Your task to perform on an android device: manage bookmarks in the chrome app Image 0: 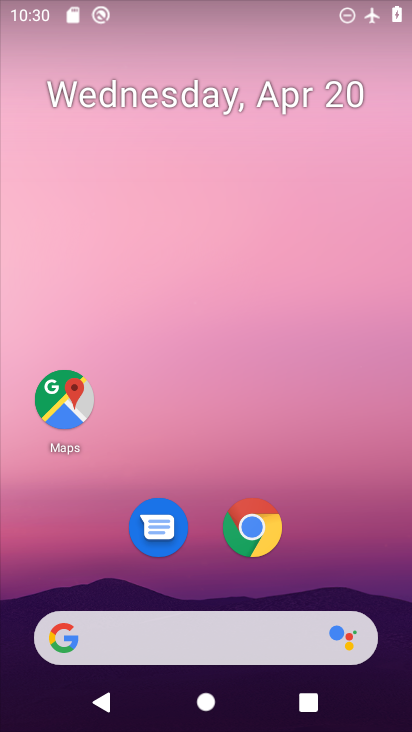
Step 0: click (271, 536)
Your task to perform on an android device: manage bookmarks in the chrome app Image 1: 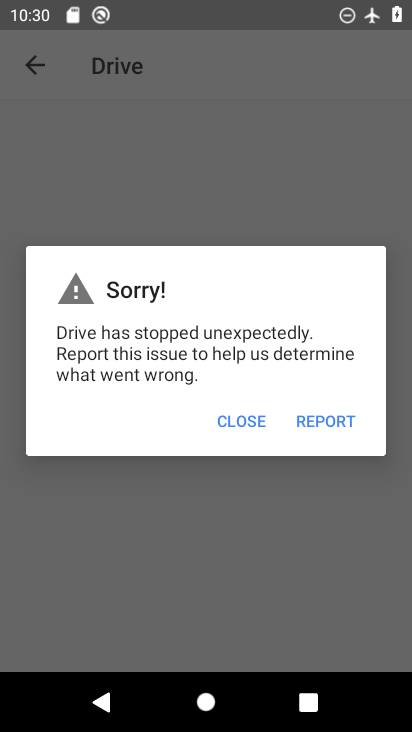
Step 1: click (240, 418)
Your task to perform on an android device: manage bookmarks in the chrome app Image 2: 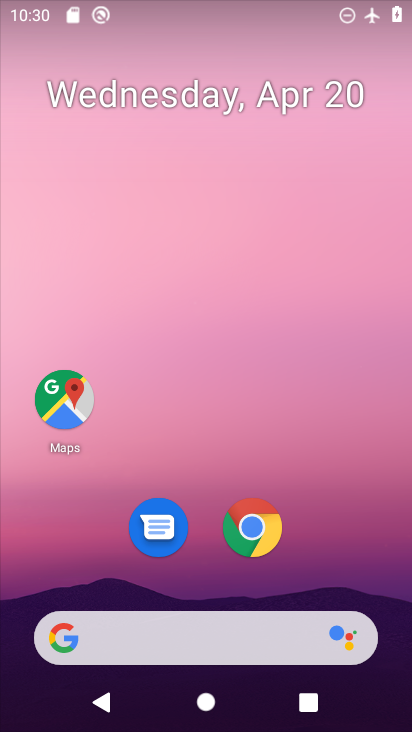
Step 2: click (248, 529)
Your task to perform on an android device: manage bookmarks in the chrome app Image 3: 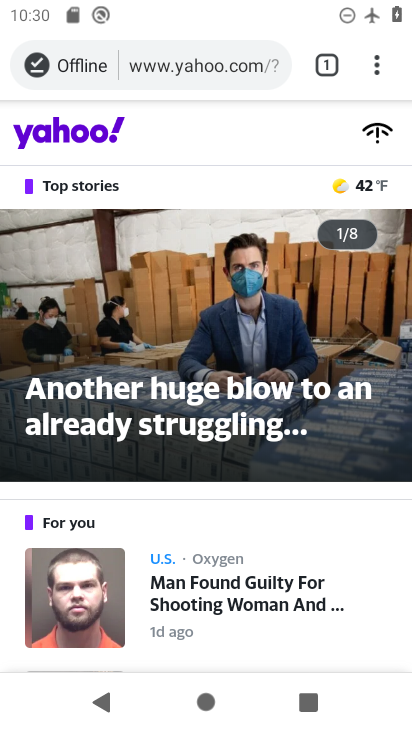
Step 3: click (377, 57)
Your task to perform on an android device: manage bookmarks in the chrome app Image 4: 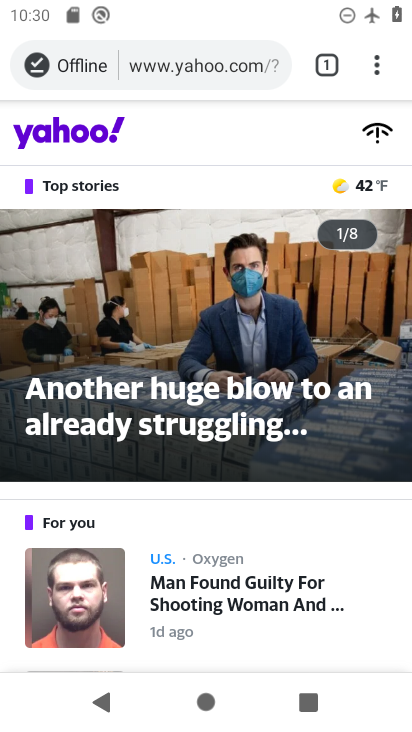
Step 4: click (376, 85)
Your task to perform on an android device: manage bookmarks in the chrome app Image 5: 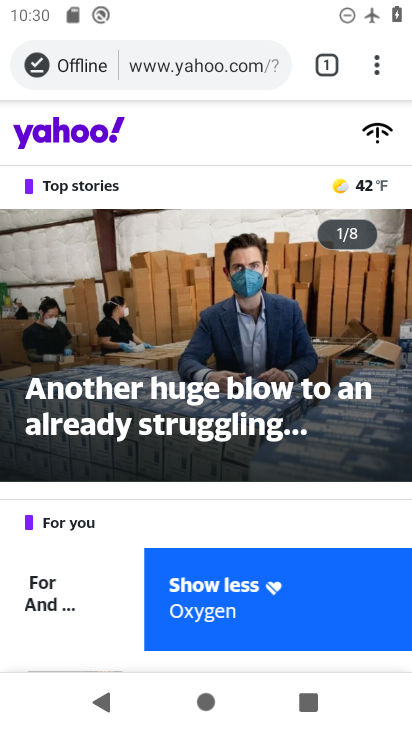
Step 5: click (378, 61)
Your task to perform on an android device: manage bookmarks in the chrome app Image 6: 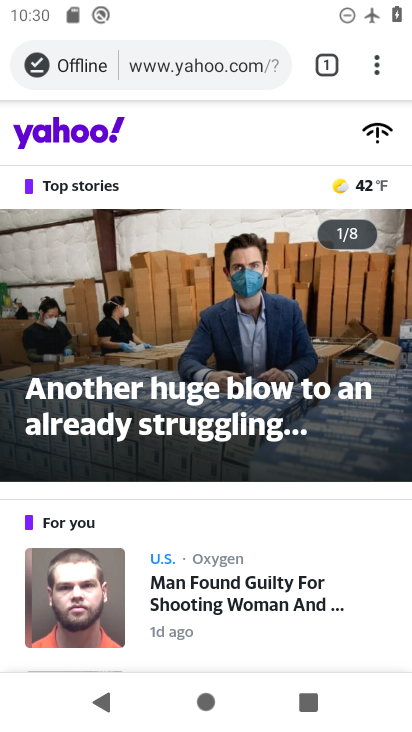
Step 6: click (378, 69)
Your task to perform on an android device: manage bookmarks in the chrome app Image 7: 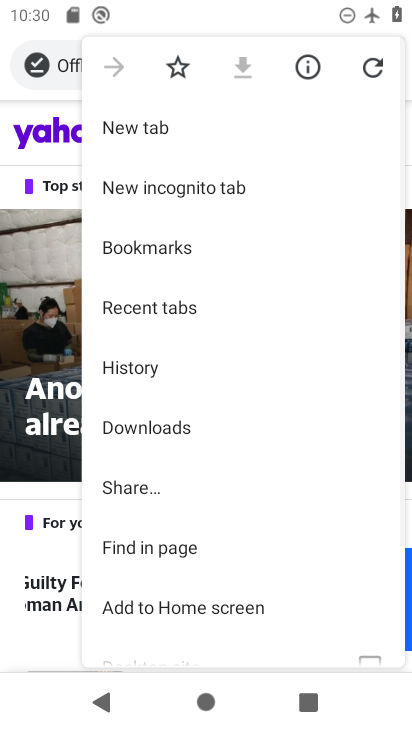
Step 7: drag from (167, 517) to (188, 345)
Your task to perform on an android device: manage bookmarks in the chrome app Image 8: 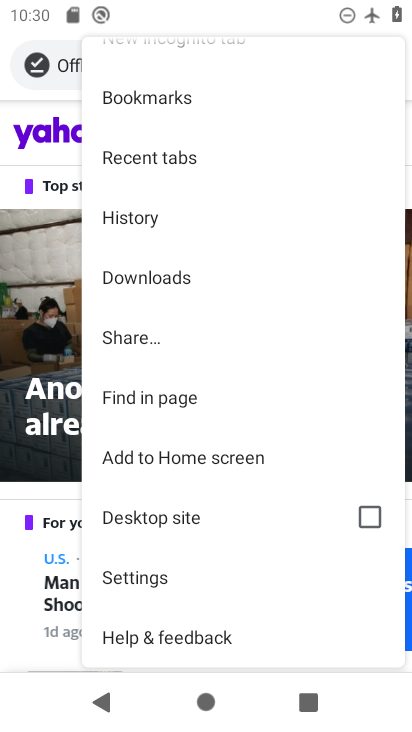
Step 8: click (178, 105)
Your task to perform on an android device: manage bookmarks in the chrome app Image 9: 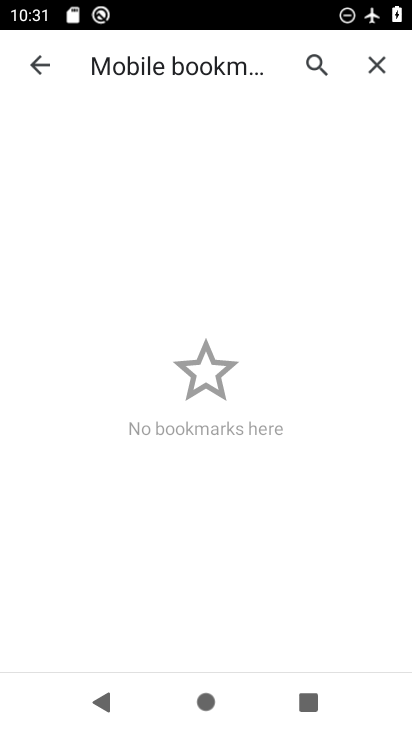
Step 9: task complete